Your task to perform on an android device: turn off airplane mode Image 0: 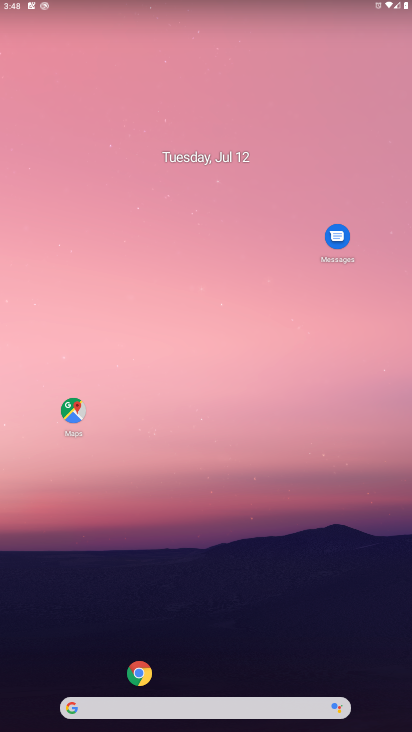
Step 0: drag from (51, 654) to (403, 271)
Your task to perform on an android device: turn off airplane mode Image 1: 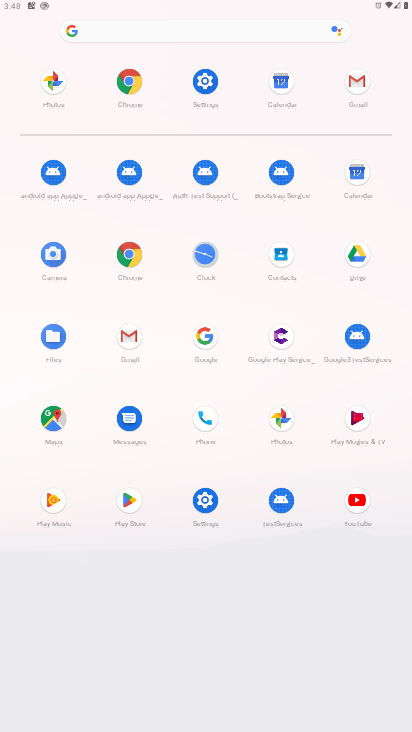
Step 1: click (213, 525)
Your task to perform on an android device: turn off airplane mode Image 2: 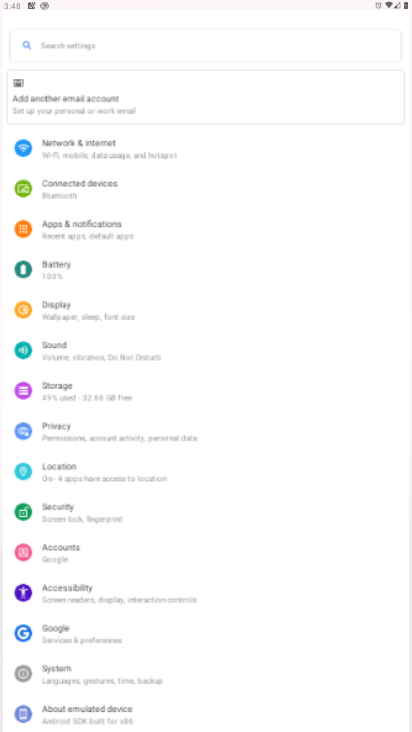
Step 2: click (204, 503)
Your task to perform on an android device: turn off airplane mode Image 3: 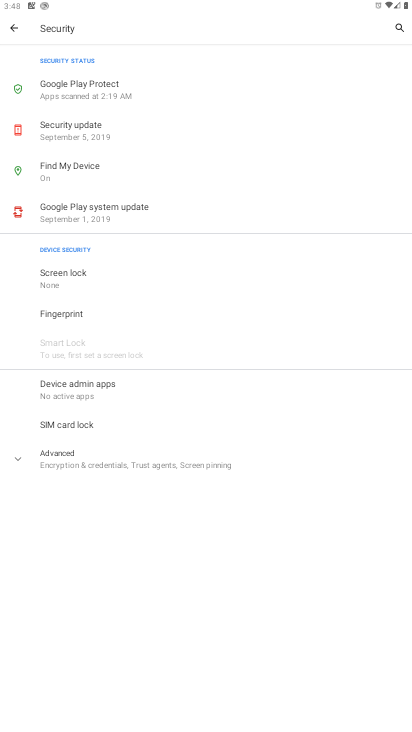
Step 3: click (22, 29)
Your task to perform on an android device: turn off airplane mode Image 4: 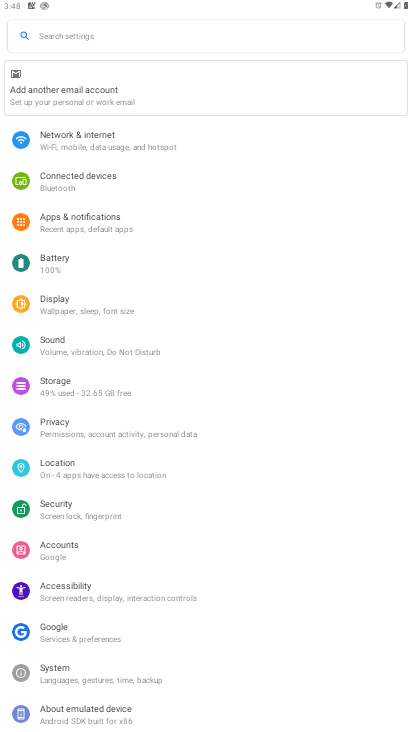
Step 4: click (113, 146)
Your task to perform on an android device: turn off airplane mode Image 5: 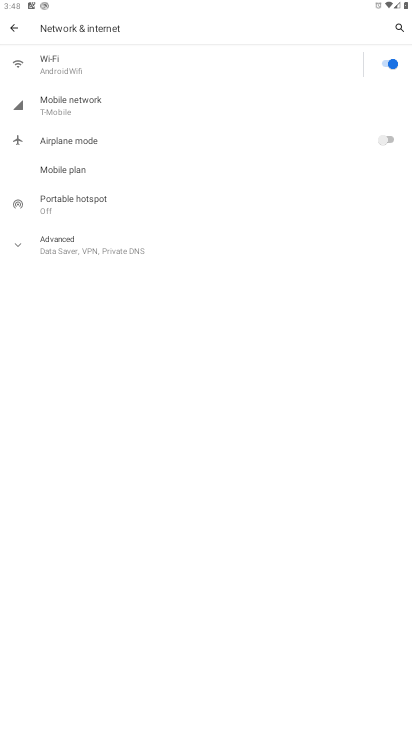
Step 5: task complete